Your task to perform on an android device: set the timer Image 0: 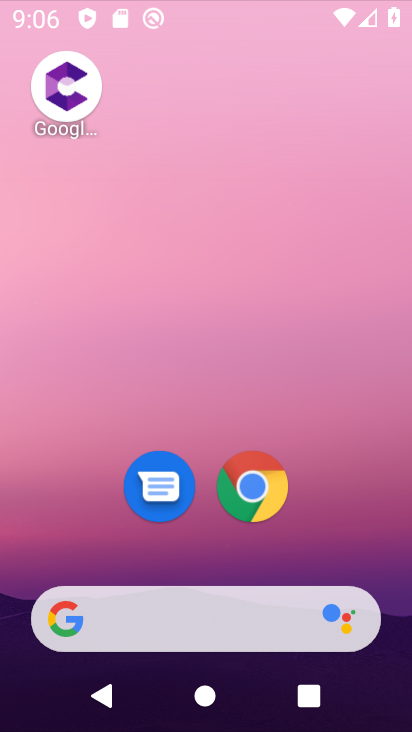
Step 0: press home button
Your task to perform on an android device: set the timer Image 1: 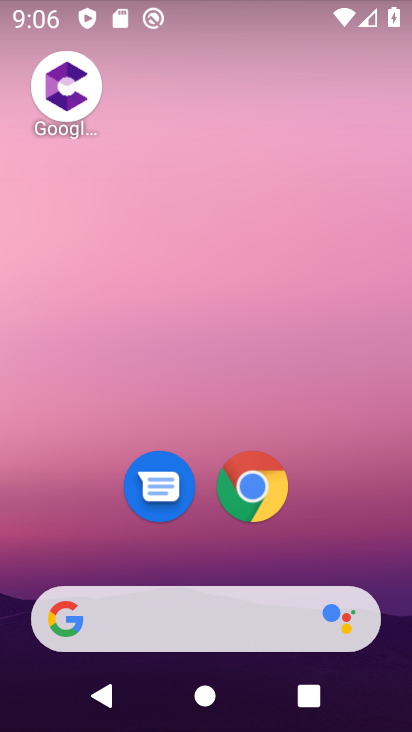
Step 1: drag from (203, 546) to (220, 118)
Your task to perform on an android device: set the timer Image 2: 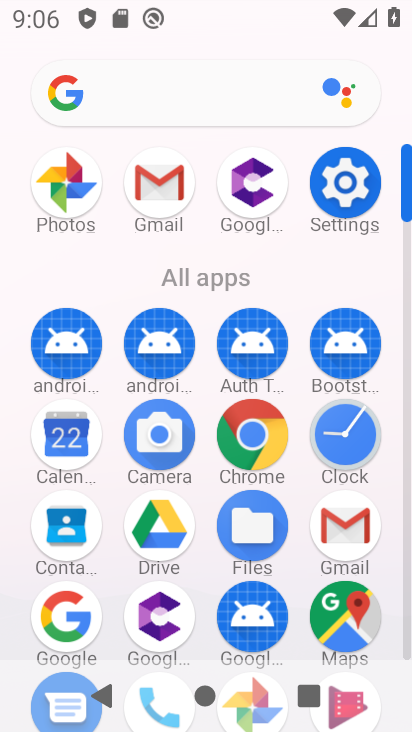
Step 2: click (345, 425)
Your task to perform on an android device: set the timer Image 3: 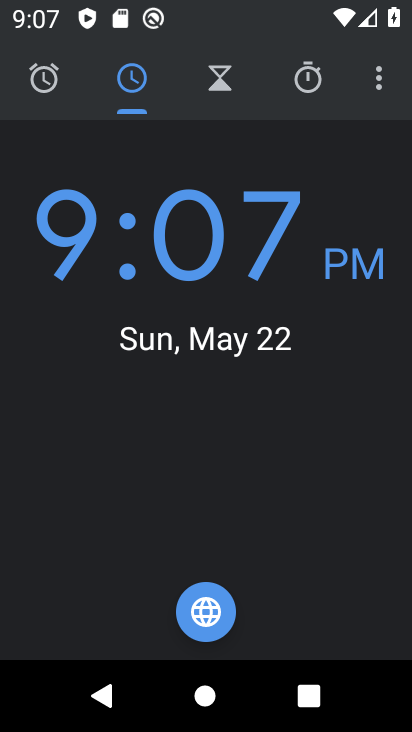
Step 3: click (228, 83)
Your task to perform on an android device: set the timer Image 4: 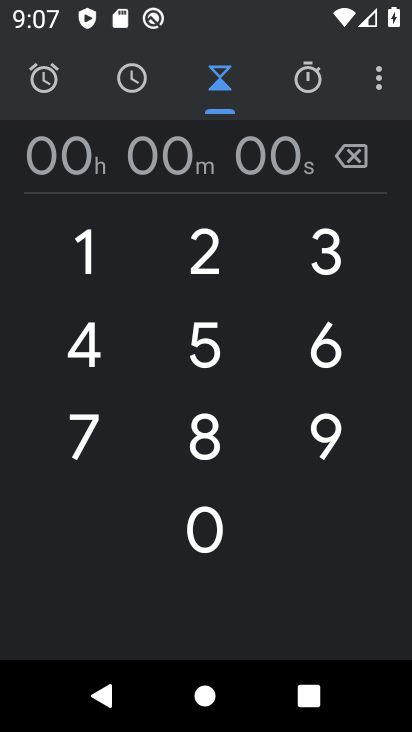
Step 4: click (197, 265)
Your task to perform on an android device: set the timer Image 5: 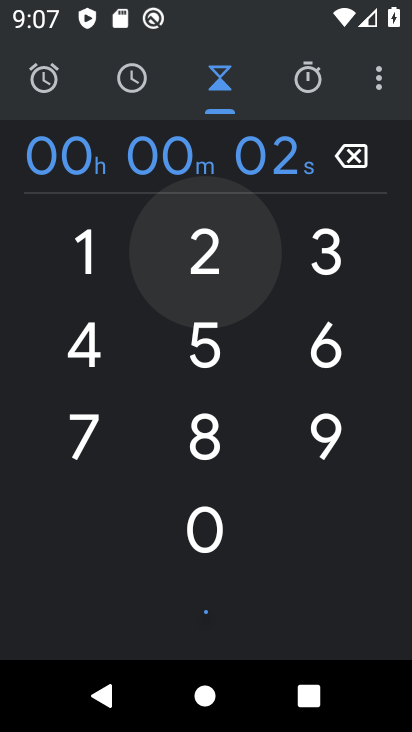
Step 5: click (199, 529)
Your task to perform on an android device: set the timer Image 6: 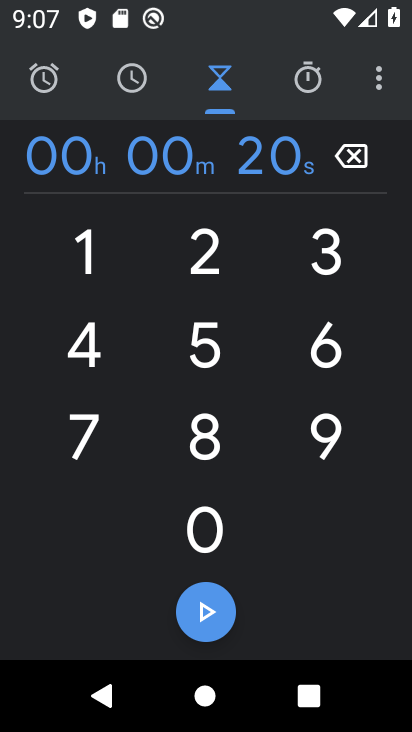
Step 6: click (199, 529)
Your task to perform on an android device: set the timer Image 7: 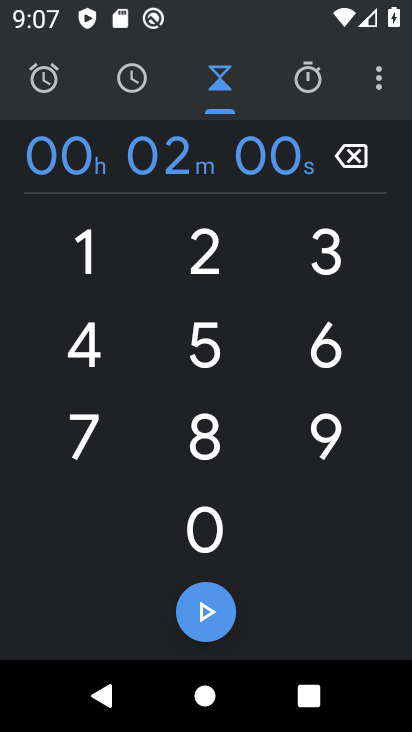
Step 7: click (199, 529)
Your task to perform on an android device: set the timer Image 8: 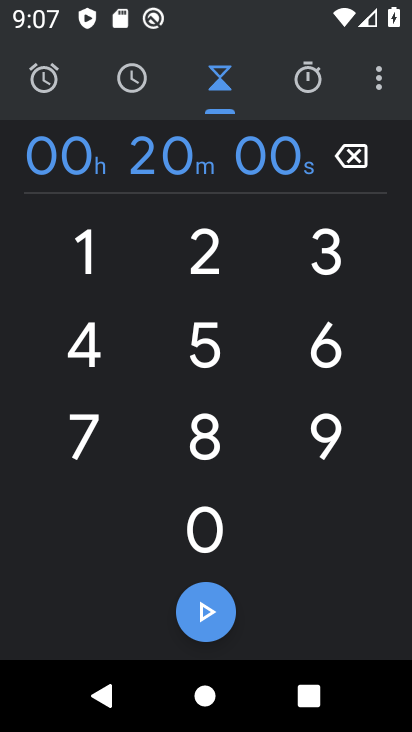
Step 8: click (210, 613)
Your task to perform on an android device: set the timer Image 9: 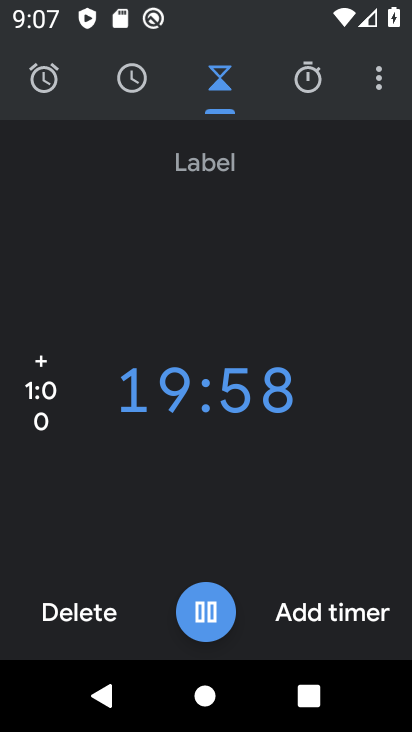
Step 9: task complete